Your task to perform on an android device: search for starred emails in the gmail app Image 0: 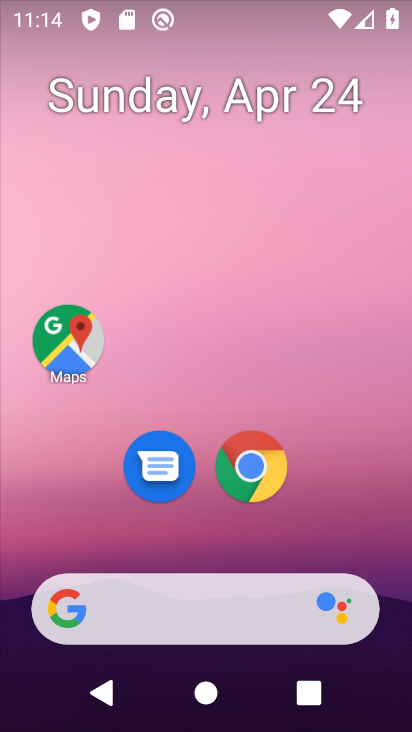
Step 0: drag from (267, 552) to (343, 133)
Your task to perform on an android device: search for starred emails in the gmail app Image 1: 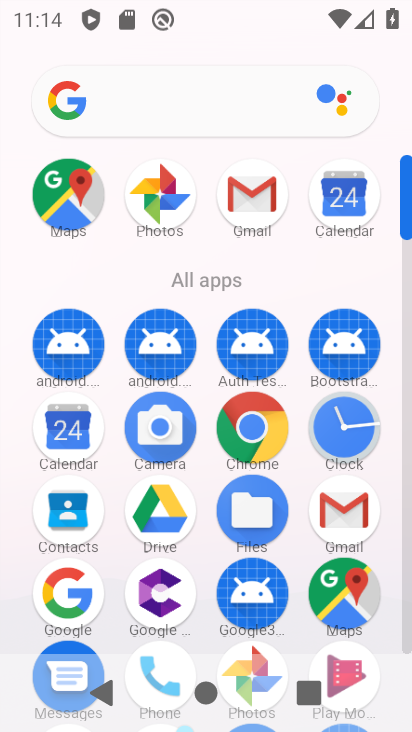
Step 1: click (254, 195)
Your task to perform on an android device: search for starred emails in the gmail app Image 2: 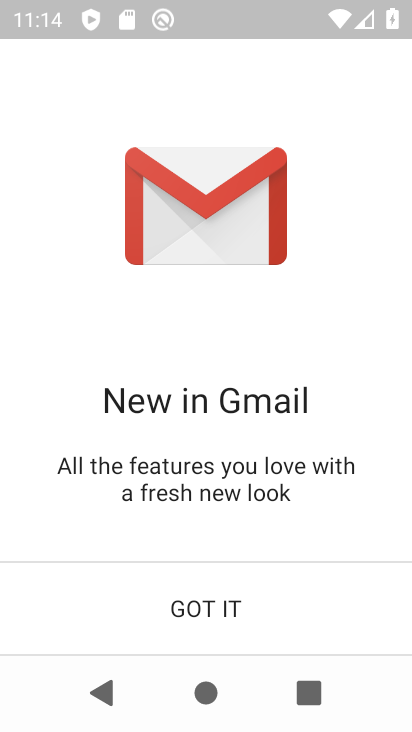
Step 2: click (219, 625)
Your task to perform on an android device: search for starred emails in the gmail app Image 3: 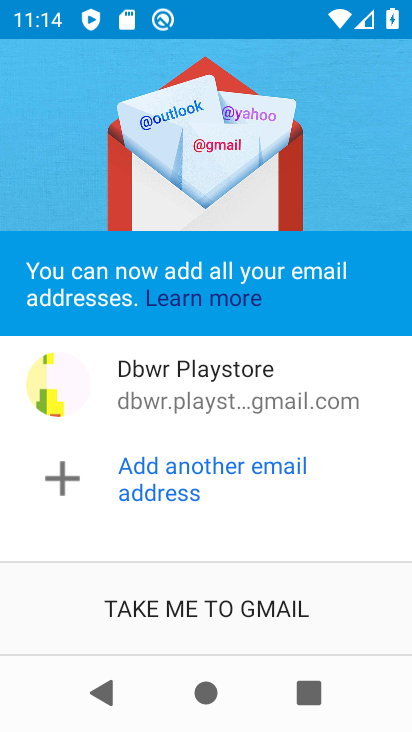
Step 3: click (219, 625)
Your task to perform on an android device: search for starred emails in the gmail app Image 4: 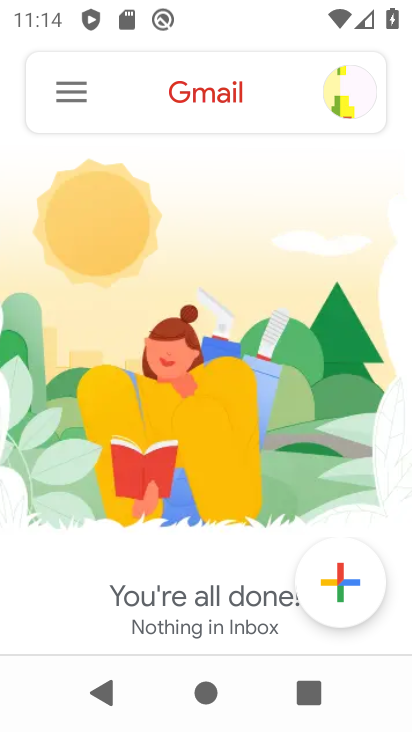
Step 4: click (51, 65)
Your task to perform on an android device: search for starred emails in the gmail app Image 5: 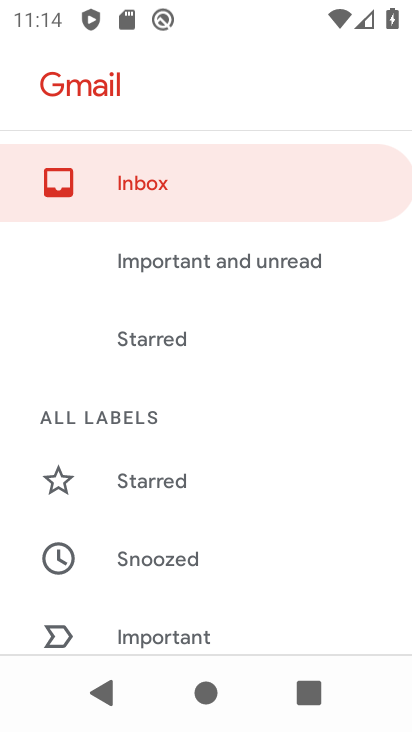
Step 5: click (125, 349)
Your task to perform on an android device: search for starred emails in the gmail app Image 6: 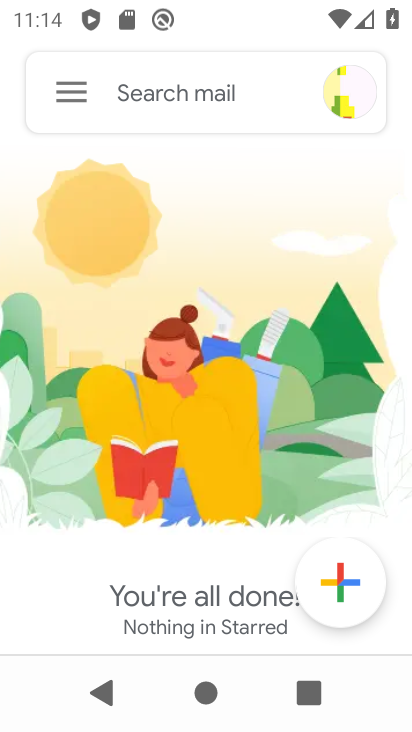
Step 6: task complete